Your task to perform on an android device: Go to network settings Image 0: 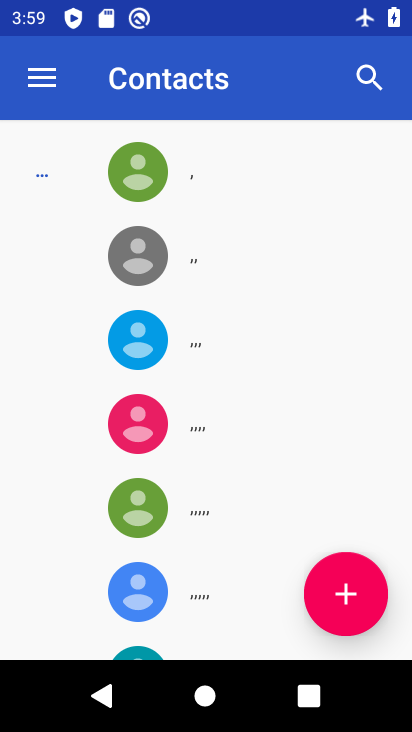
Step 0: press back button
Your task to perform on an android device: Go to network settings Image 1: 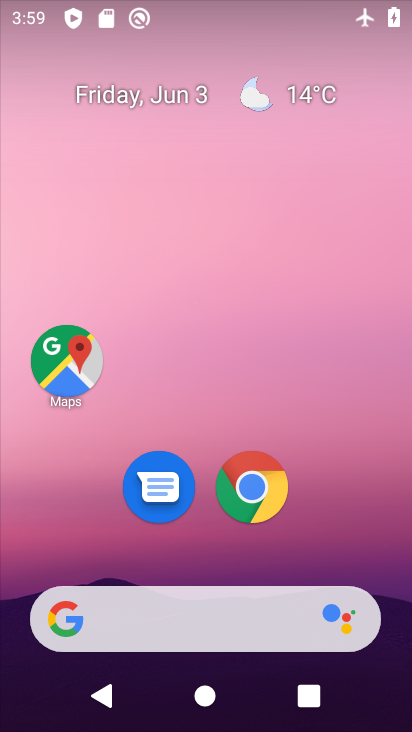
Step 1: drag from (175, 585) to (249, 114)
Your task to perform on an android device: Go to network settings Image 2: 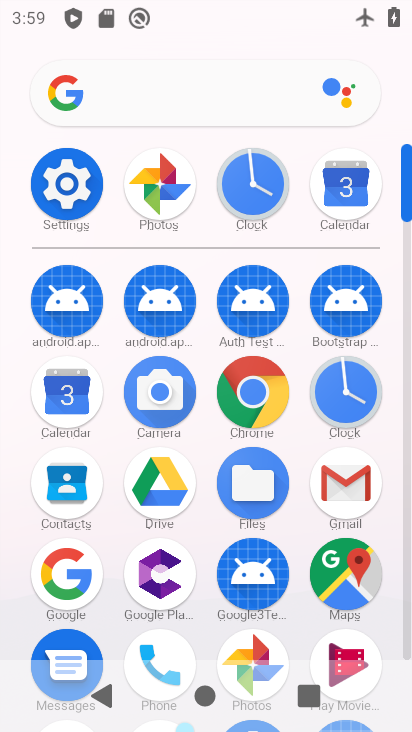
Step 2: click (66, 191)
Your task to perform on an android device: Go to network settings Image 3: 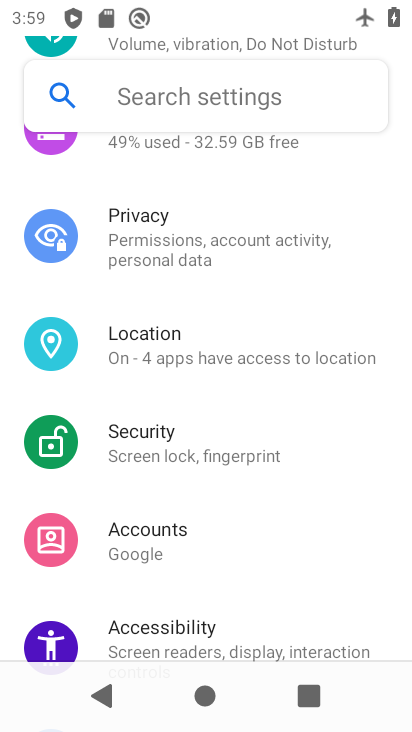
Step 3: drag from (175, 259) to (208, 632)
Your task to perform on an android device: Go to network settings Image 4: 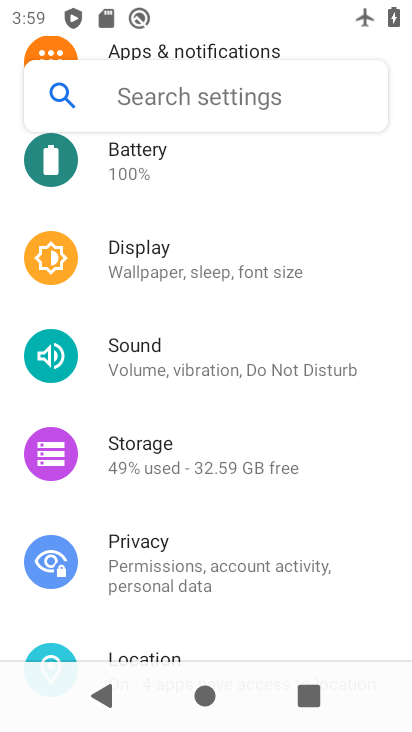
Step 4: drag from (222, 226) to (137, 542)
Your task to perform on an android device: Go to network settings Image 5: 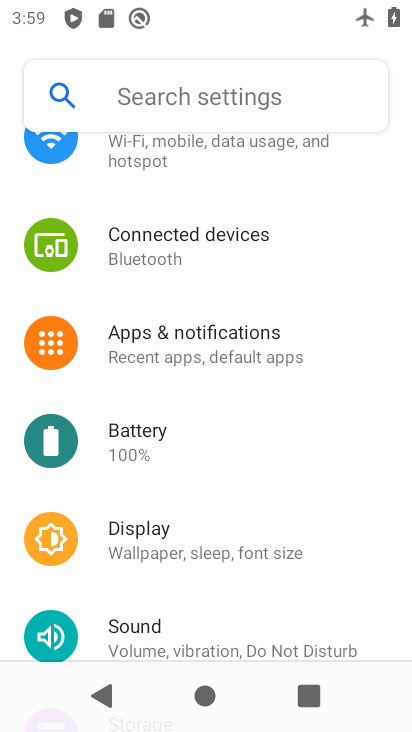
Step 5: drag from (180, 173) to (138, 614)
Your task to perform on an android device: Go to network settings Image 6: 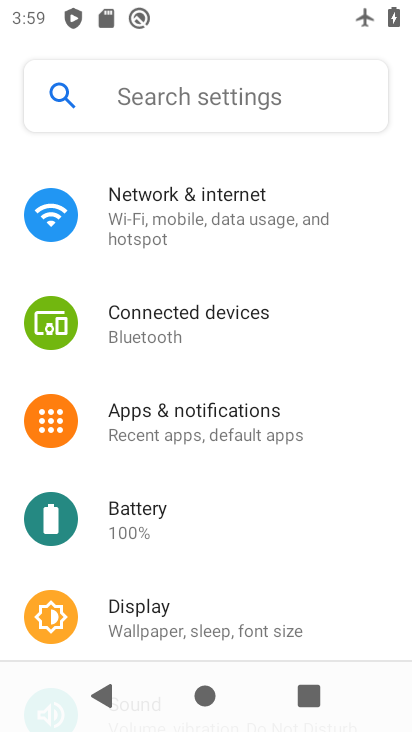
Step 6: click (157, 219)
Your task to perform on an android device: Go to network settings Image 7: 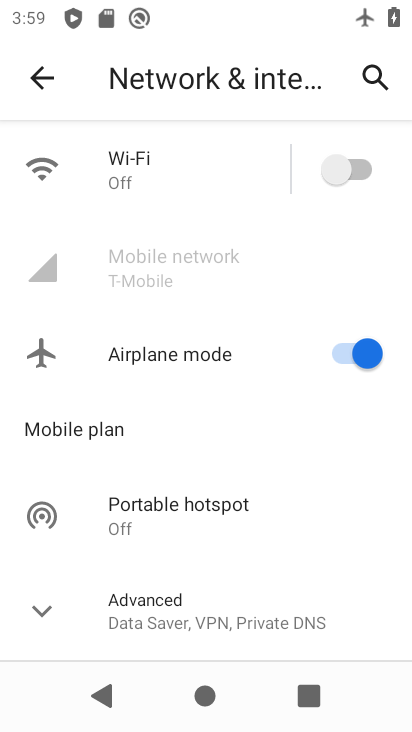
Step 7: task complete